Your task to perform on an android device: Open wifi settings Image 0: 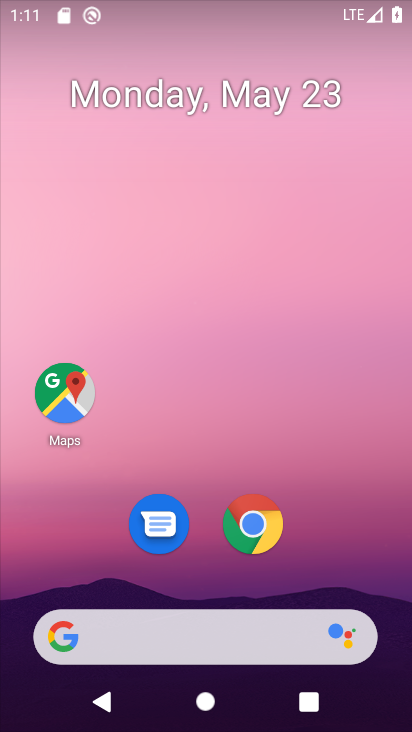
Step 0: drag from (294, 473) to (251, 16)
Your task to perform on an android device: Open wifi settings Image 1: 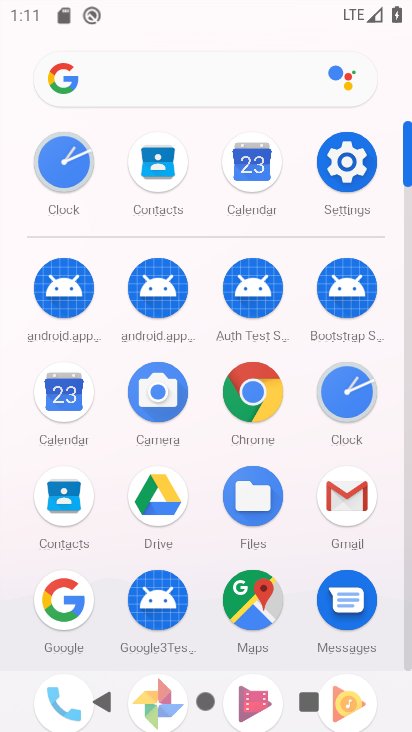
Step 1: click (340, 160)
Your task to perform on an android device: Open wifi settings Image 2: 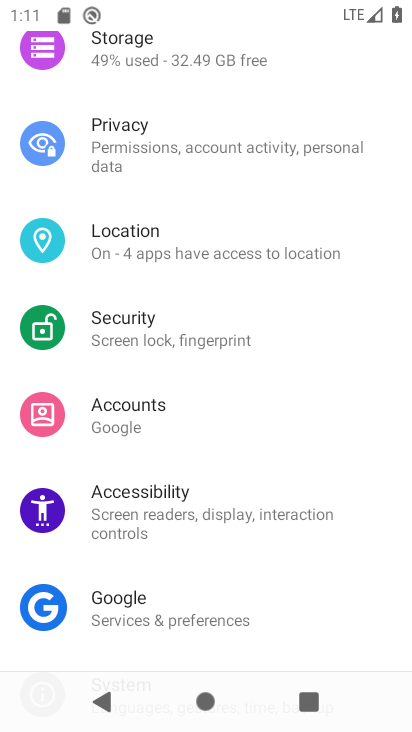
Step 2: drag from (280, 233) to (285, 678)
Your task to perform on an android device: Open wifi settings Image 3: 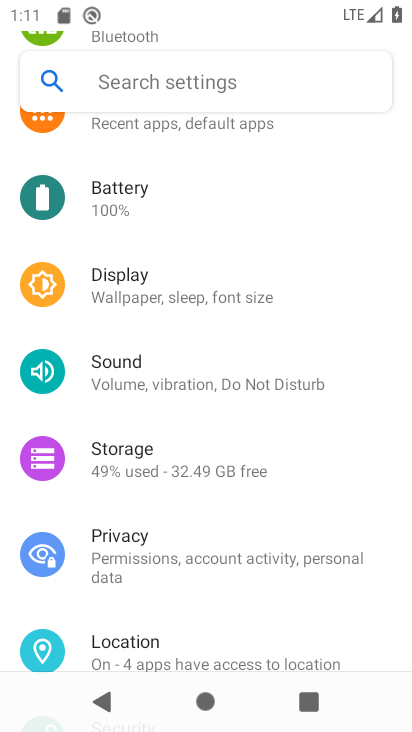
Step 3: drag from (263, 264) to (289, 685)
Your task to perform on an android device: Open wifi settings Image 4: 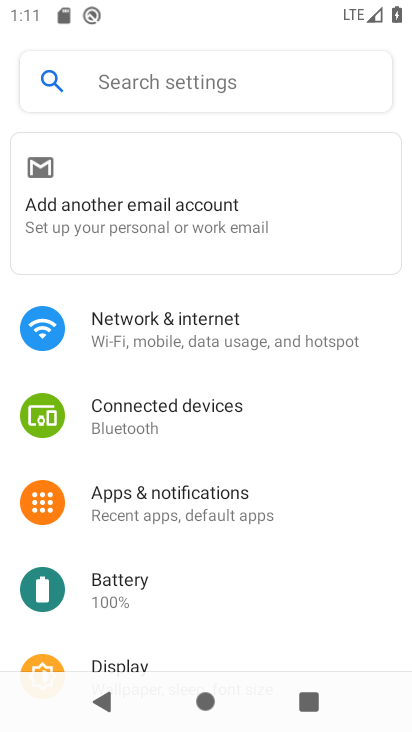
Step 4: click (265, 331)
Your task to perform on an android device: Open wifi settings Image 5: 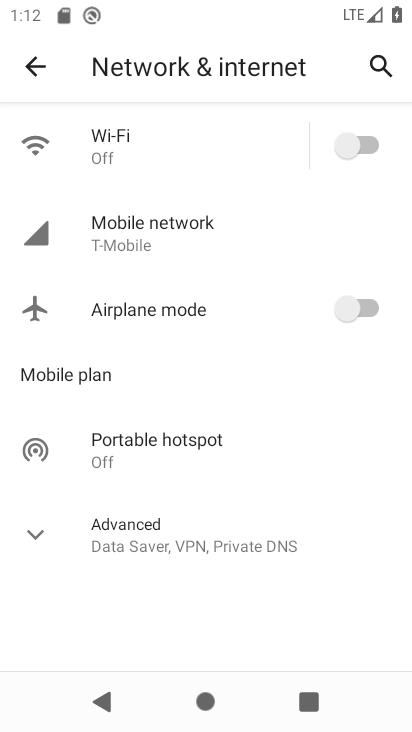
Step 5: click (138, 152)
Your task to perform on an android device: Open wifi settings Image 6: 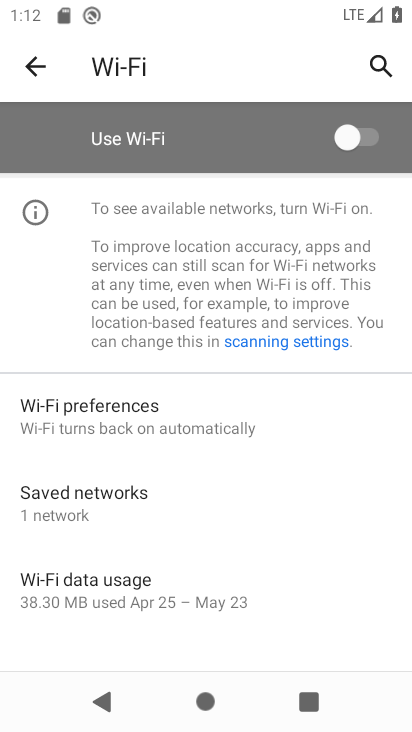
Step 6: task complete